Your task to perform on an android device: Go to CNN.com Image 0: 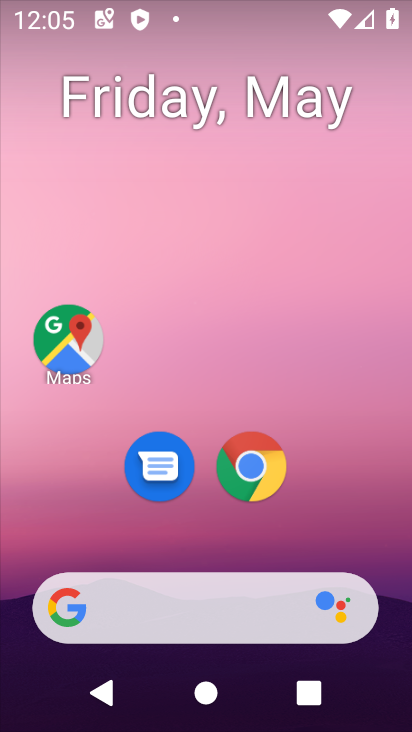
Step 0: drag from (389, 599) to (285, 31)
Your task to perform on an android device: Go to CNN.com Image 1: 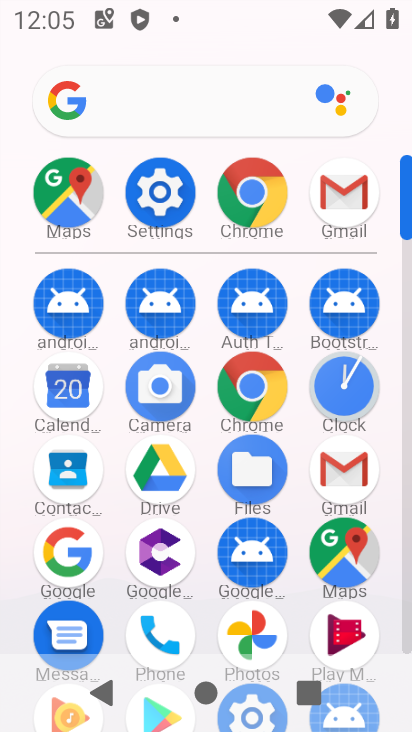
Step 1: click (82, 576)
Your task to perform on an android device: Go to CNN.com Image 2: 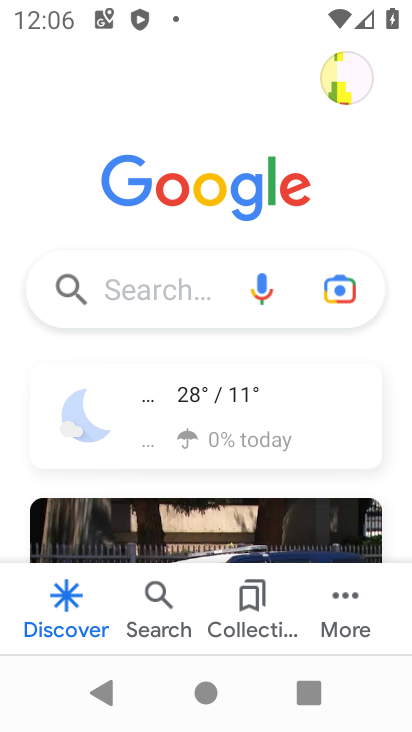
Step 2: click (163, 286)
Your task to perform on an android device: Go to CNN.com Image 3: 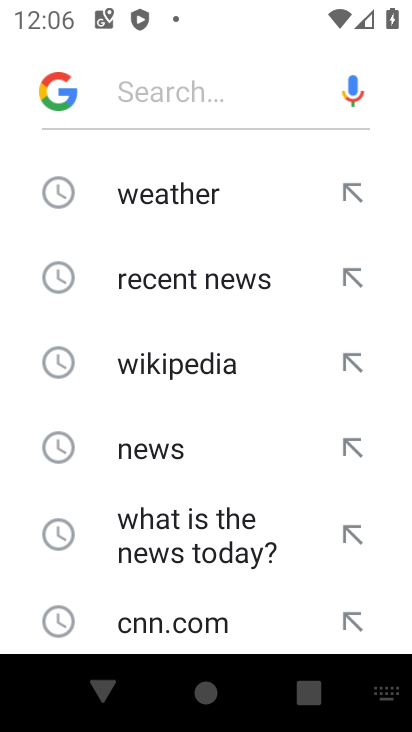
Step 3: drag from (127, 564) to (144, 148)
Your task to perform on an android device: Go to CNN.com Image 4: 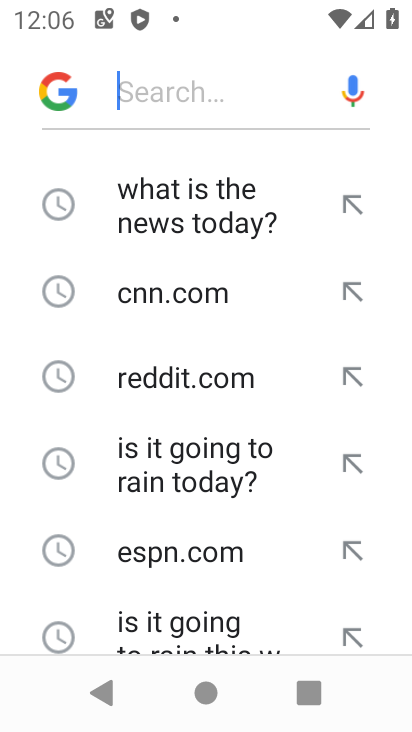
Step 4: click (190, 278)
Your task to perform on an android device: Go to CNN.com Image 5: 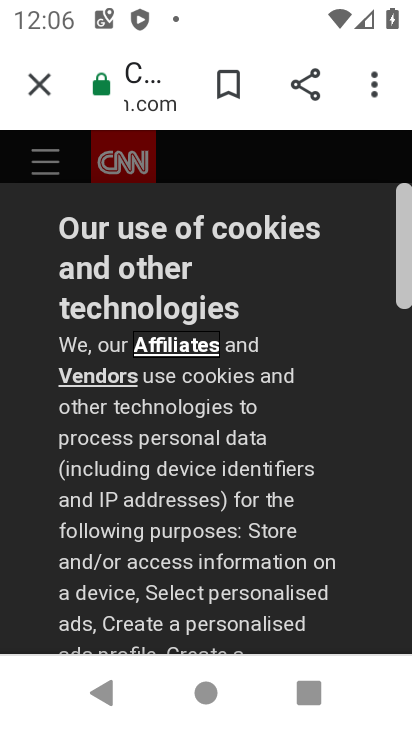
Step 5: task complete